Your task to perform on an android device: open app "Reddit" (install if not already installed) Image 0: 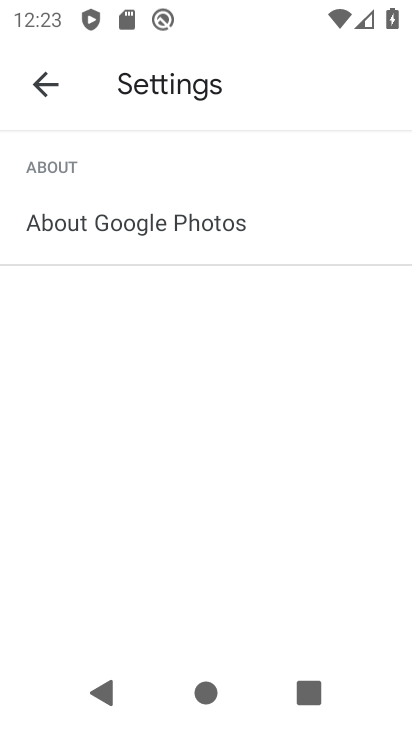
Step 0: press home button
Your task to perform on an android device: open app "Reddit" (install if not already installed) Image 1: 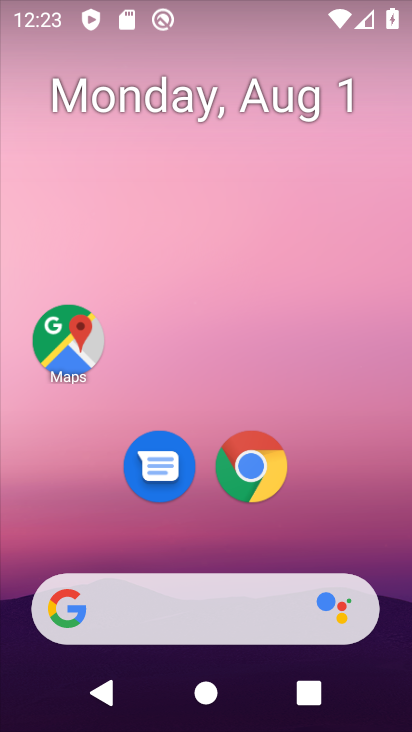
Step 1: drag from (228, 545) to (392, 433)
Your task to perform on an android device: open app "Reddit" (install if not already installed) Image 2: 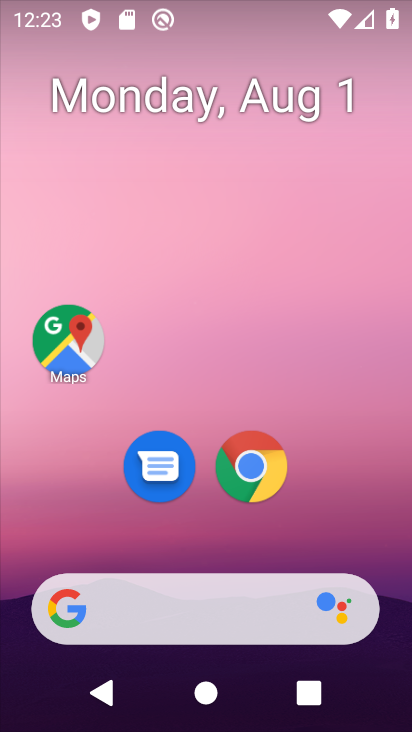
Step 2: drag from (204, 553) to (203, 3)
Your task to perform on an android device: open app "Reddit" (install if not already installed) Image 3: 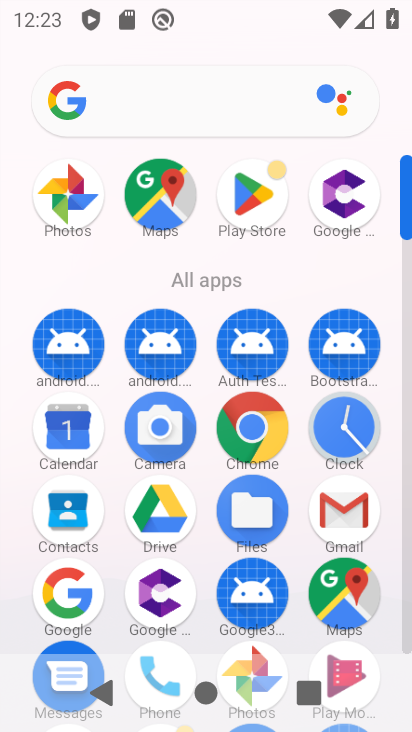
Step 3: click (269, 202)
Your task to perform on an android device: open app "Reddit" (install if not already installed) Image 4: 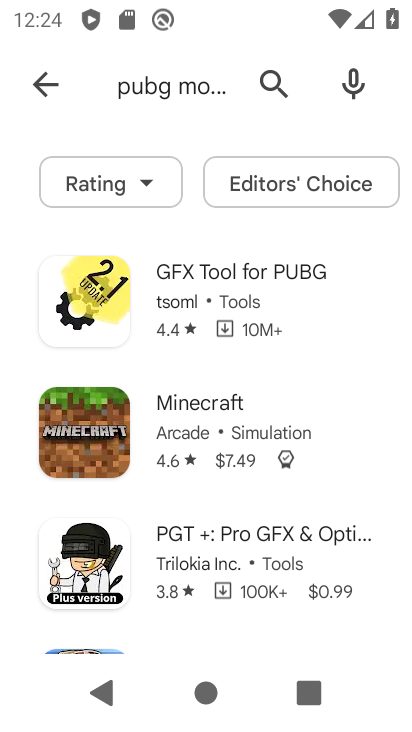
Step 4: click (177, 85)
Your task to perform on an android device: open app "Reddit" (install if not already installed) Image 5: 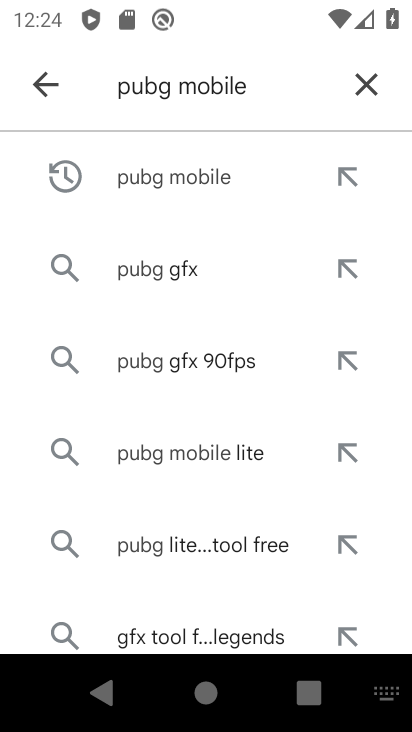
Step 5: click (362, 86)
Your task to perform on an android device: open app "Reddit" (install if not already installed) Image 6: 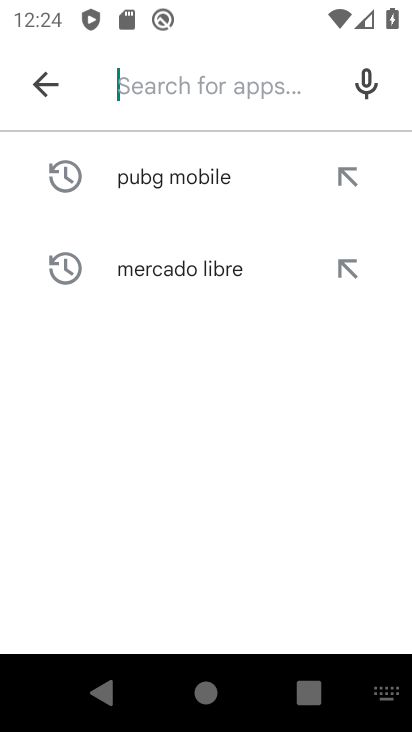
Step 6: type "Reddit"
Your task to perform on an android device: open app "Reddit" (install if not already installed) Image 7: 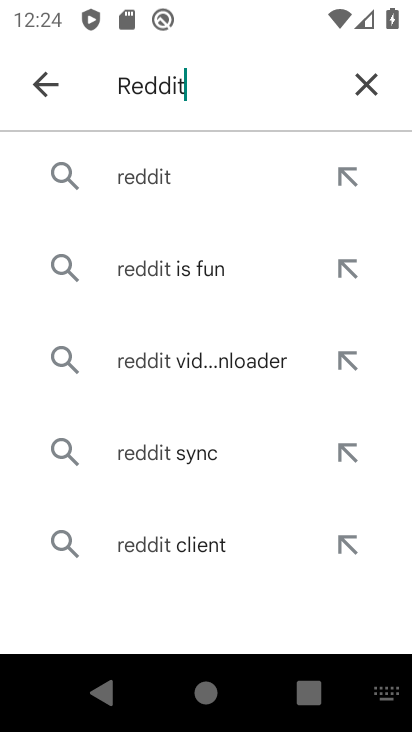
Step 7: click (99, 173)
Your task to perform on an android device: open app "Reddit" (install if not already installed) Image 8: 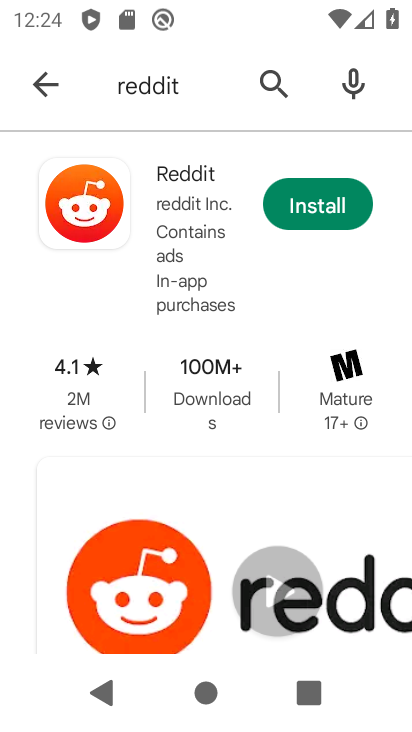
Step 8: click (349, 209)
Your task to perform on an android device: open app "Reddit" (install if not already installed) Image 9: 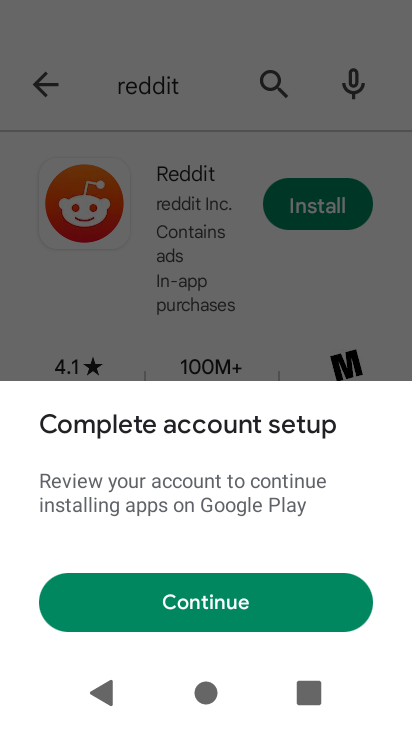
Step 9: click (263, 607)
Your task to perform on an android device: open app "Reddit" (install if not already installed) Image 10: 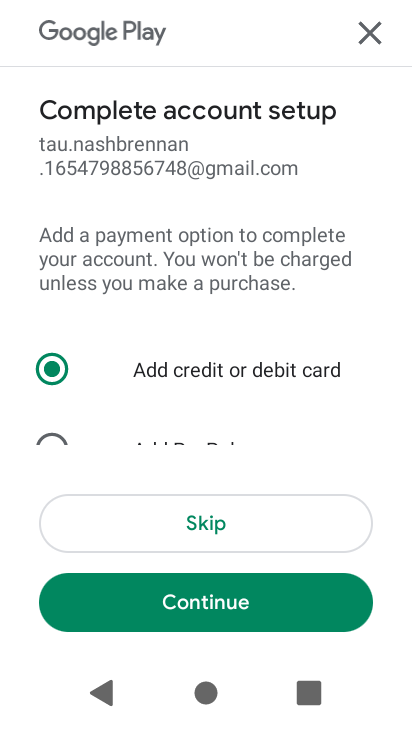
Step 10: click (189, 521)
Your task to perform on an android device: open app "Reddit" (install if not already installed) Image 11: 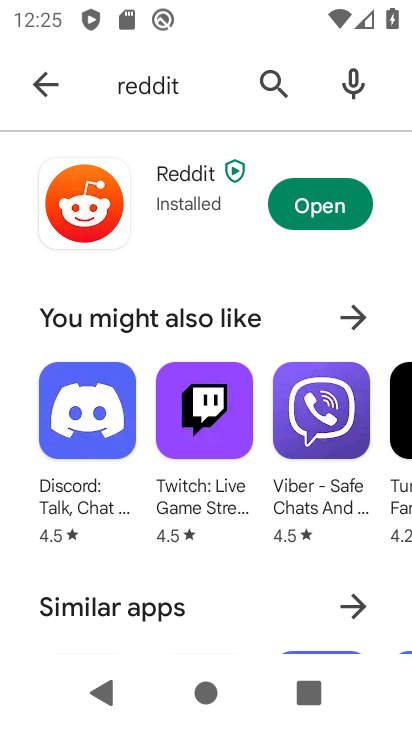
Step 11: click (339, 200)
Your task to perform on an android device: open app "Reddit" (install if not already installed) Image 12: 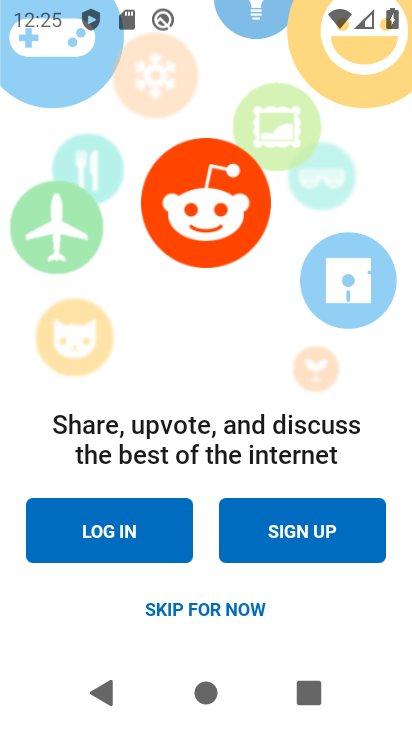
Step 12: click (196, 611)
Your task to perform on an android device: open app "Reddit" (install if not already installed) Image 13: 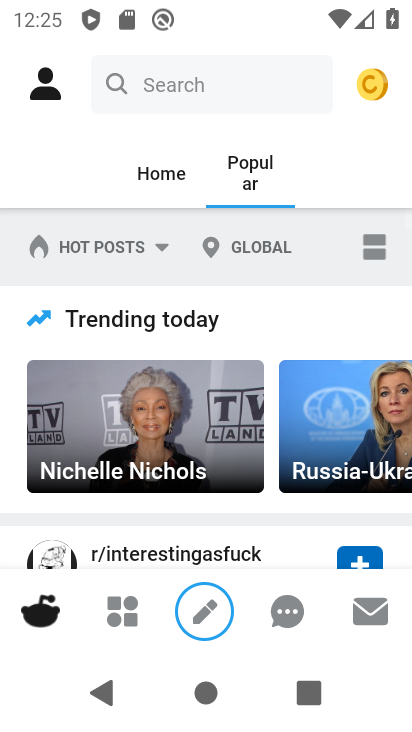
Step 13: task complete